Your task to perform on an android device: Is it going to rain tomorrow? Image 0: 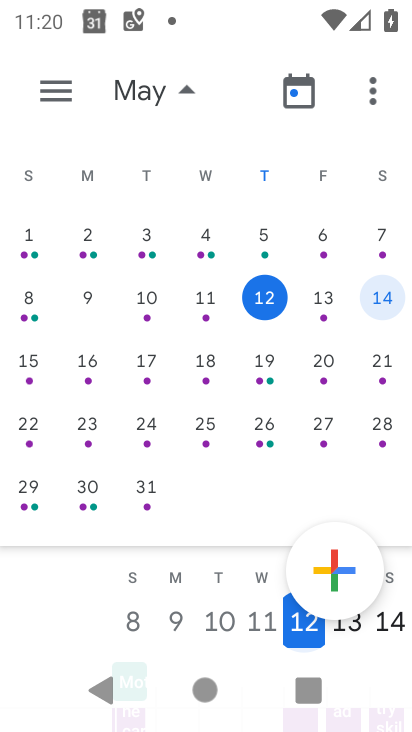
Step 0: press home button
Your task to perform on an android device: Is it going to rain tomorrow? Image 1: 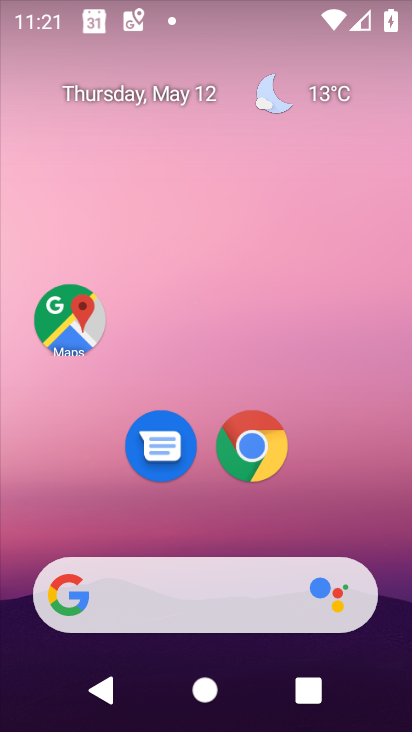
Step 1: drag from (210, 574) to (196, 19)
Your task to perform on an android device: Is it going to rain tomorrow? Image 2: 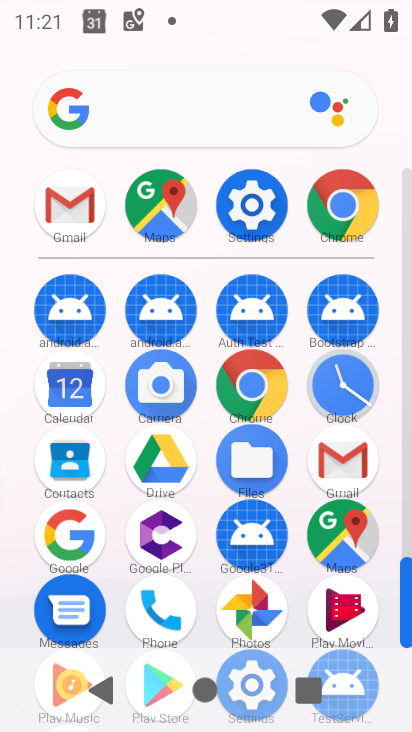
Step 2: click (260, 393)
Your task to perform on an android device: Is it going to rain tomorrow? Image 3: 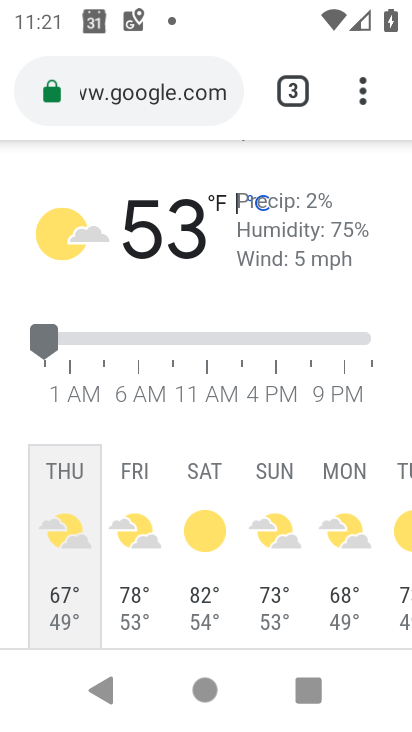
Step 3: click (195, 88)
Your task to perform on an android device: Is it going to rain tomorrow? Image 4: 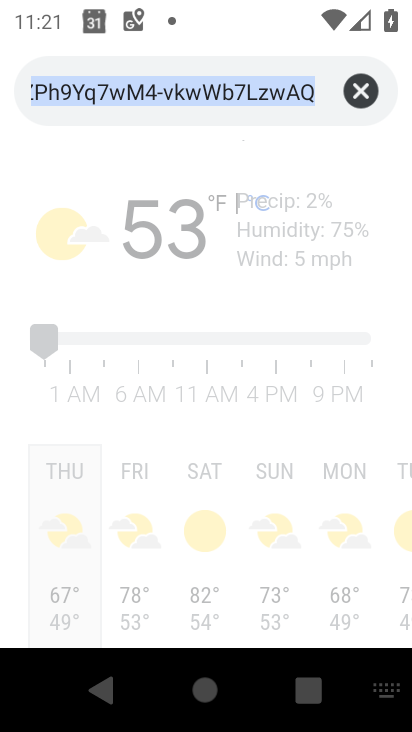
Step 4: click (355, 95)
Your task to perform on an android device: Is it going to rain tomorrow? Image 5: 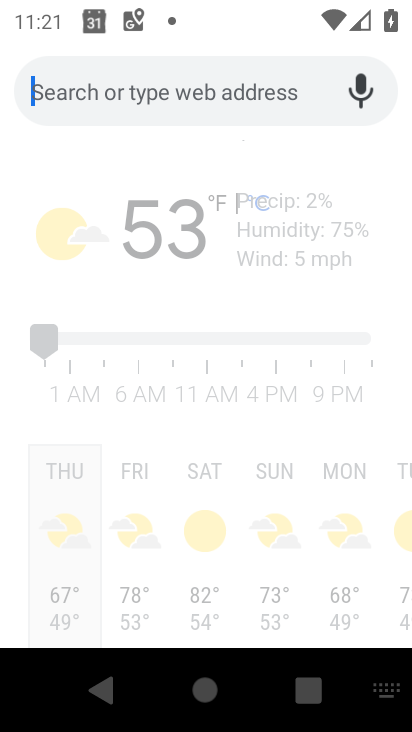
Step 5: type "is it going to rain tomorrow"
Your task to perform on an android device: Is it going to rain tomorrow? Image 6: 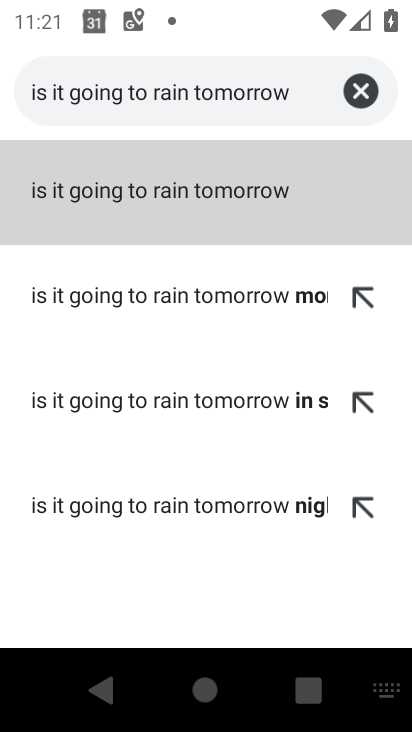
Step 6: click (136, 219)
Your task to perform on an android device: Is it going to rain tomorrow? Image 7: 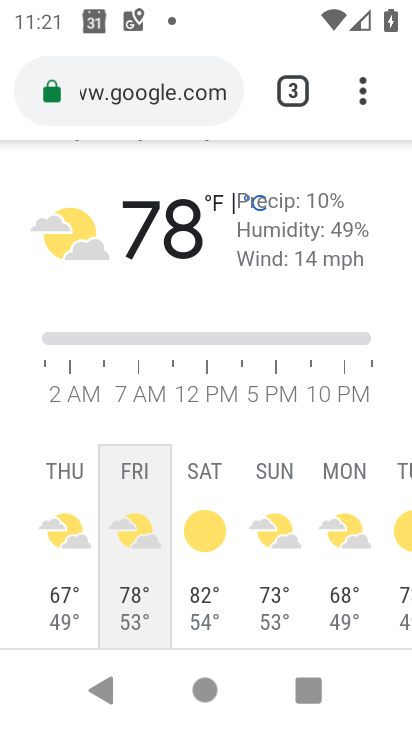
Step 7: task complete